Your task to perform on an android device: open chrome privacy settings Image 0: 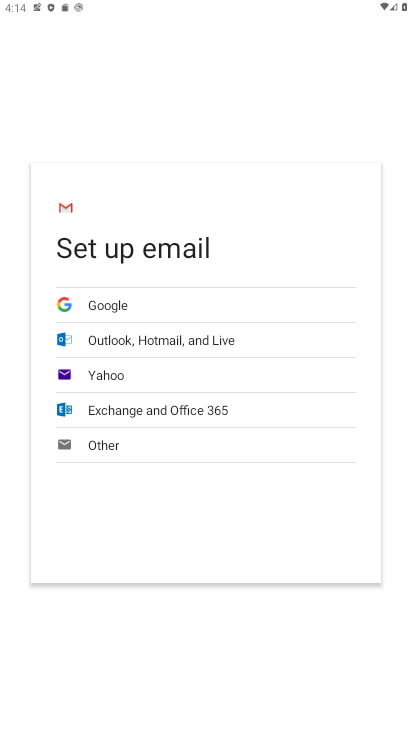
Step 0: press back button
Your task to perform on an android device: open chrome privacy settings Image 1: 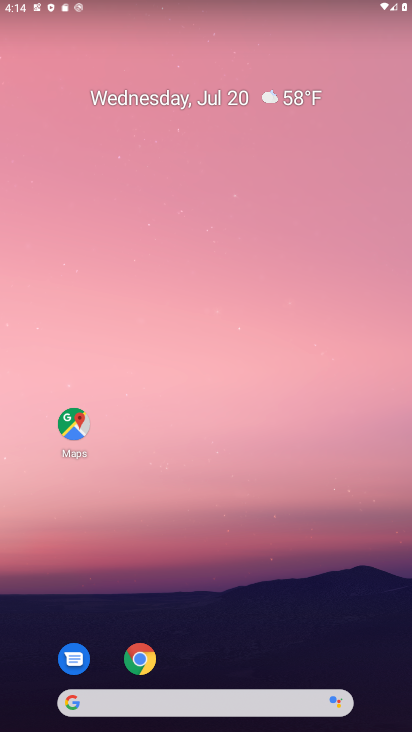
Step 1: drag from (243, 576) to (214, 160)
Your task to perform on an android device: open chrome privacy settings Image 2: 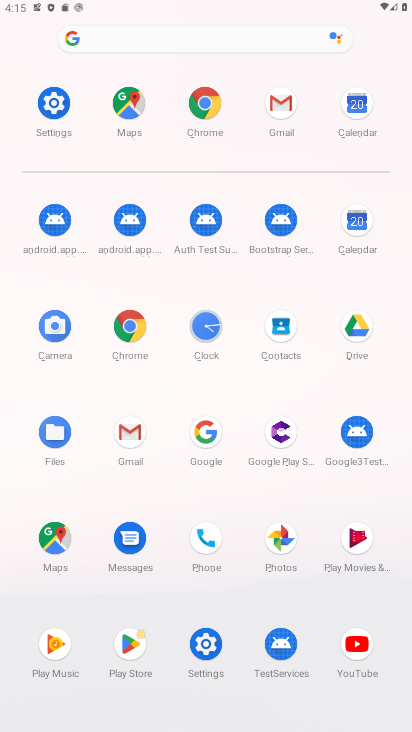
Step 2: click (205, 650)
Your task to perform on an android device: open chrome privacy settings Image 3: 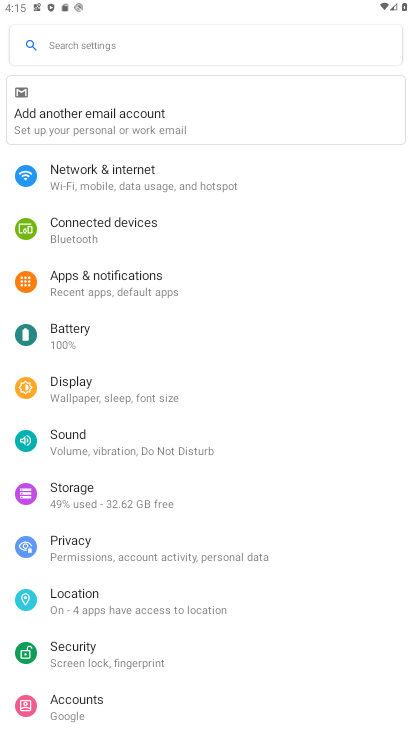
Step 3: click (86, 544)
Your task to perform on an android device: open chrome privacy settings Image 4: 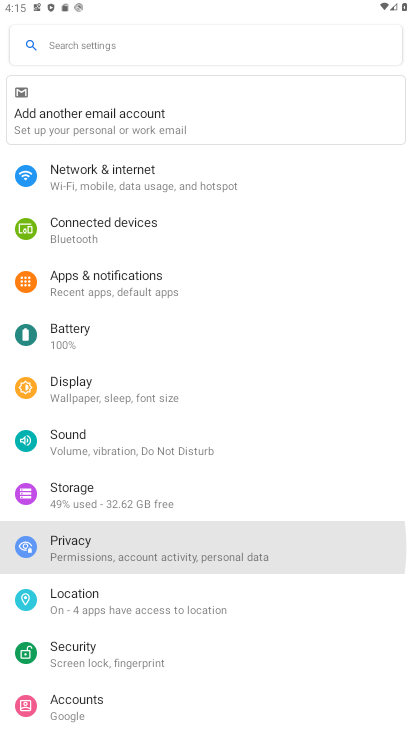
Step 4: click (86, 544)
Your task to perform on an android device: open chrome privacy settings Image 5: 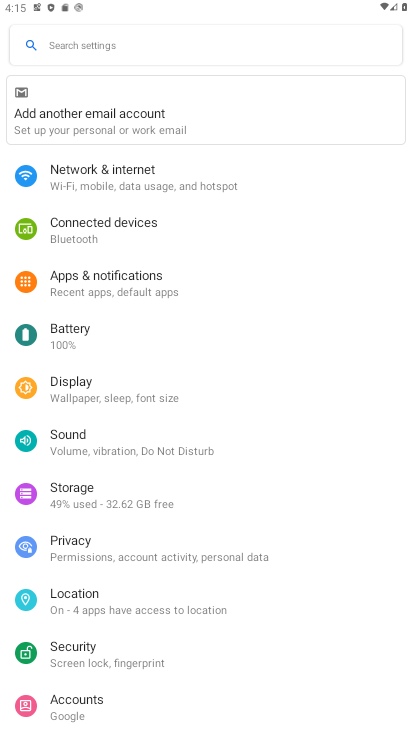
Step 5: click (89, 548)
Your task to perform on an android device: open chrome privacy settings Image 6: 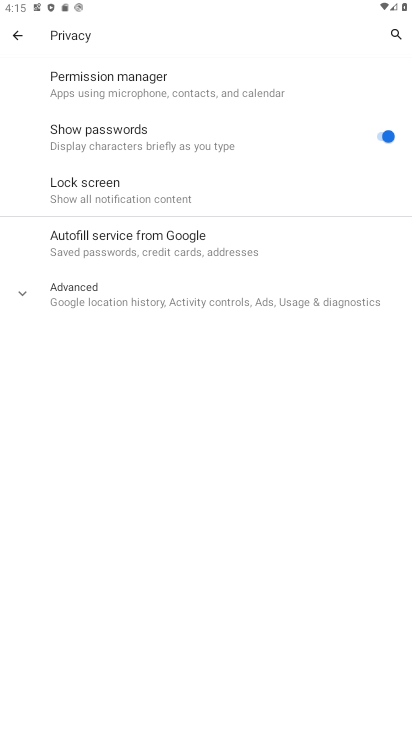
Step 6: task complete